Your task to perform on an android device: Open Google Chrome and open the bookmarks view Image 0: 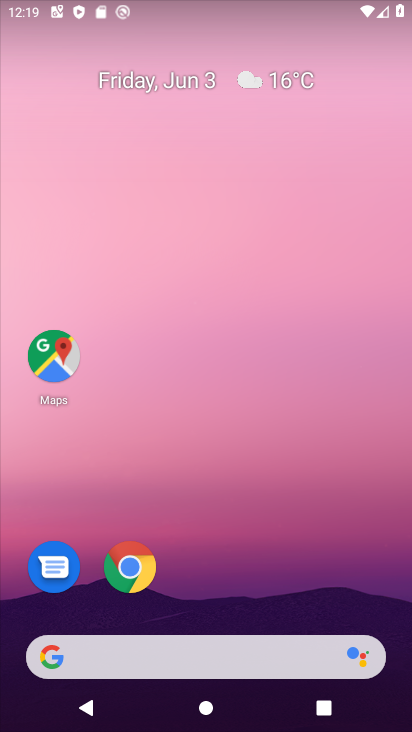
Step 0: click (147, 571)
Your task to perform on an android device: Open Google Chrome and open the bookmarks view Image 1: 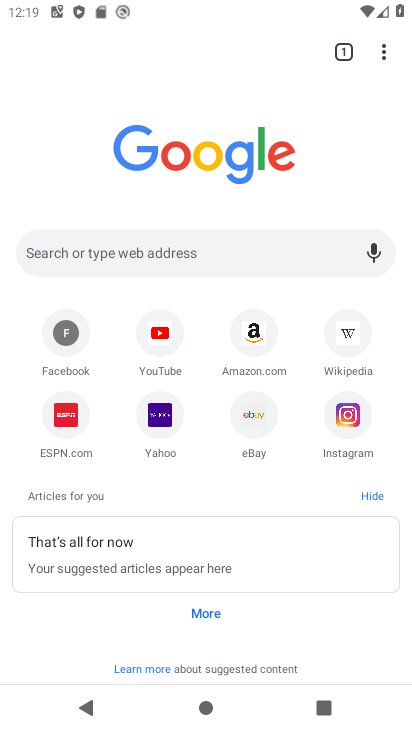
Step 1: click (378, 51)
Your task to perform on an android device: Open Google Chrome and open the bookmarks view Image 2: 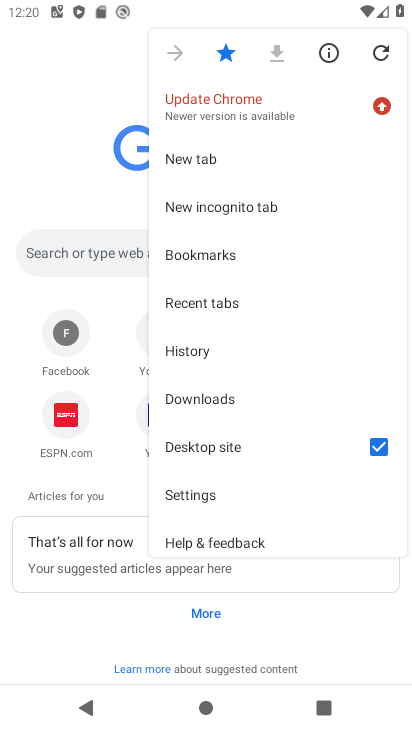
Step 2: click (237, 257)
Your task to perform on an android device: Open Google Chrome and open the bookmarks view Image 3: 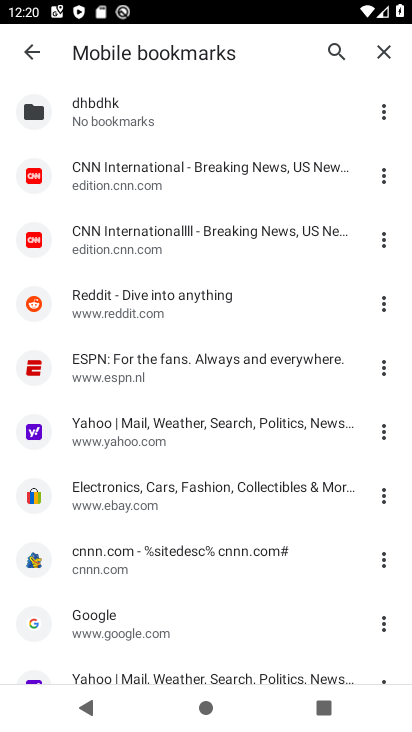
Step 3: task complete